Your task to perform on an android device: Open Google Maps Image 0: 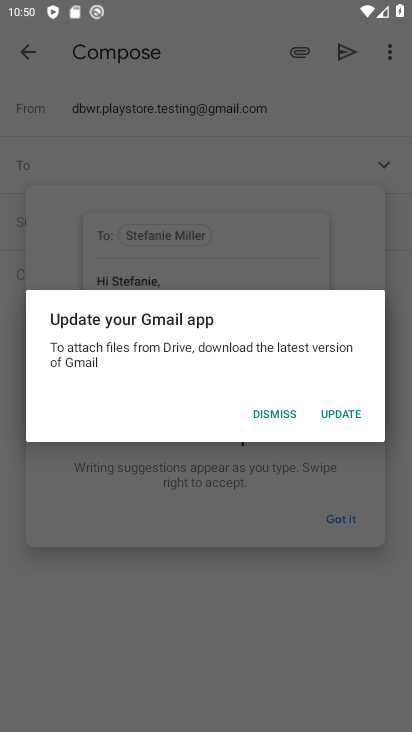
Step 0: press back button
Your task to perform on an android device: Open Google Maps Image 1: 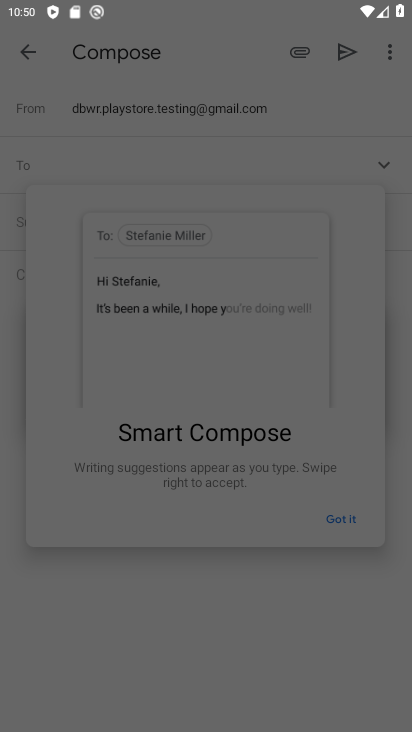
Step 1: press back button
Your task to perform on an android device: Open Google Maps Image 2: 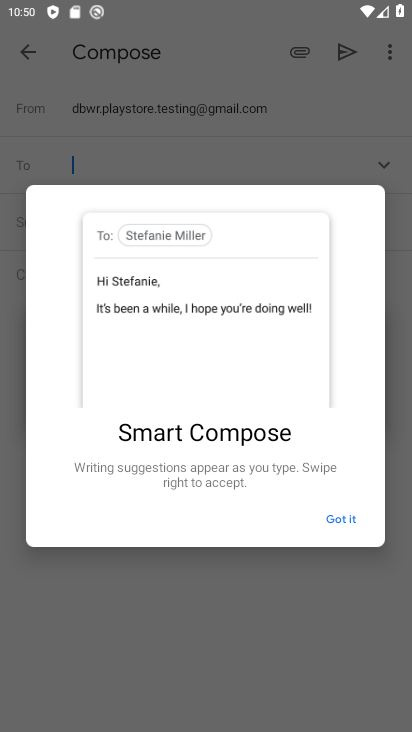
Step 2: press home button
Your task to perform on an android device: Open Google Maps Image 3: 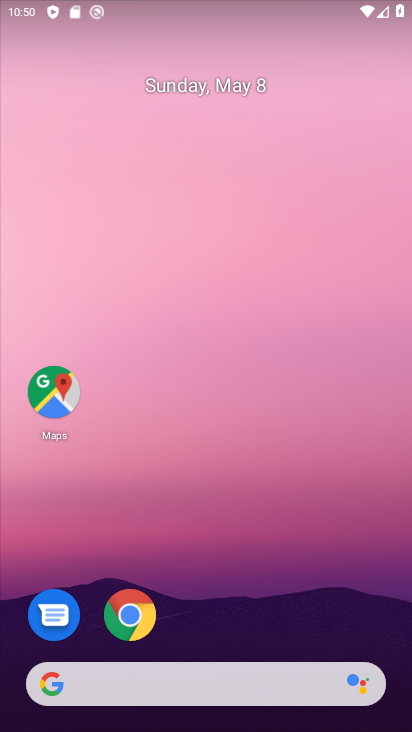
Step 3: click (41, 396)
Your task to perform on an android device: Open Google Maps Image 4: 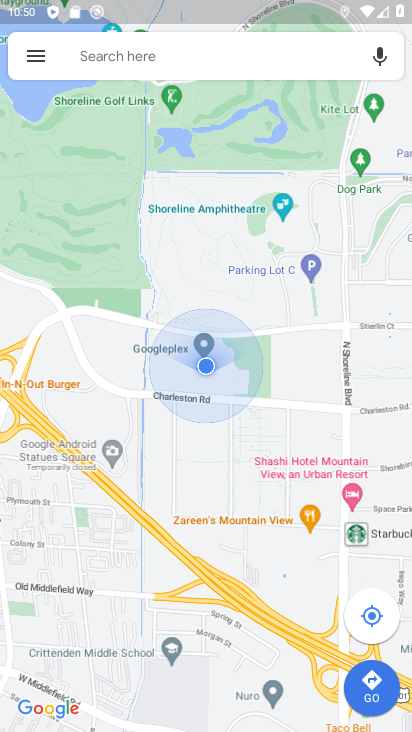
Step 4: task complete